Your task to perform on an android device: open a new tab in the chrome app Image 0: 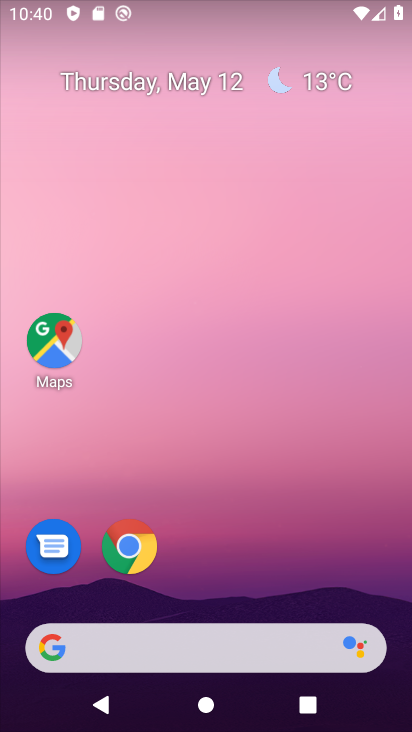
Step 0: drag from (255, 652) to (311, 261)
Your task to perform on an android device: open a new tab in the chrome app Image 1: 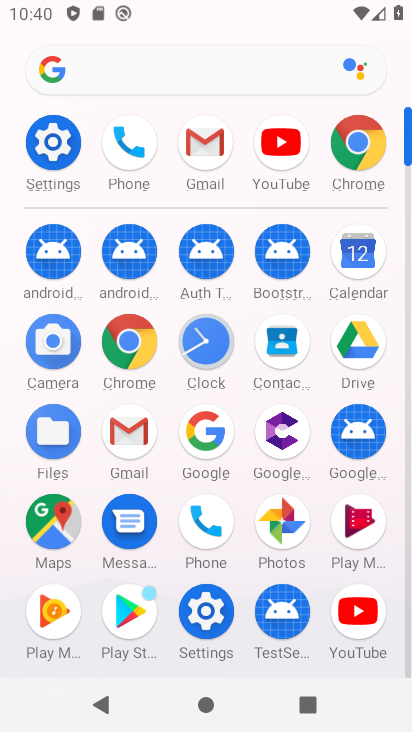
Step 1: click (136, 342)
Your task to perform on an android device: open a new tab in the chrome app Image 2: 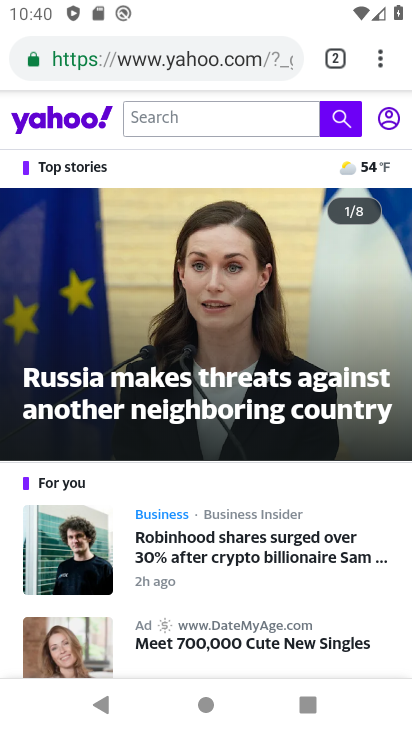
Step 2: click (370, 59)
Your task to perform on an android device: open a new tab in the chrome app Image 3: 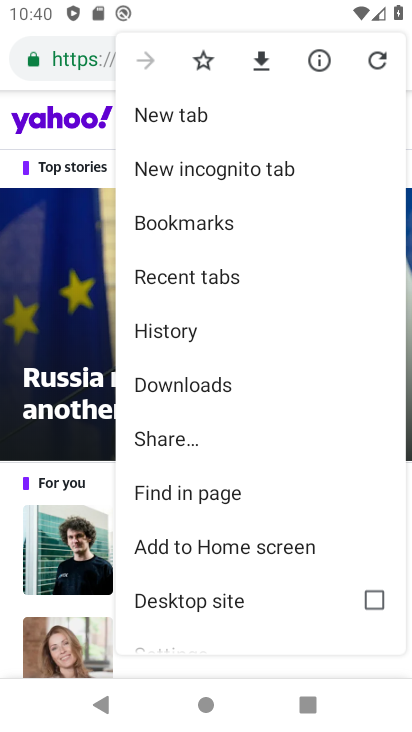
Step 3: click (210, 120)
Your task to perform on an android device: open a new tab in the chrome app Image 4: 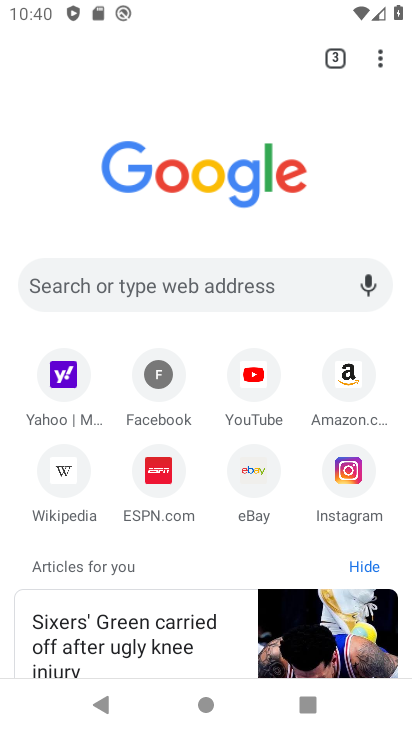
Step 4: task complete